Your task to perform on an android device: change alarm snooze length Image 0: 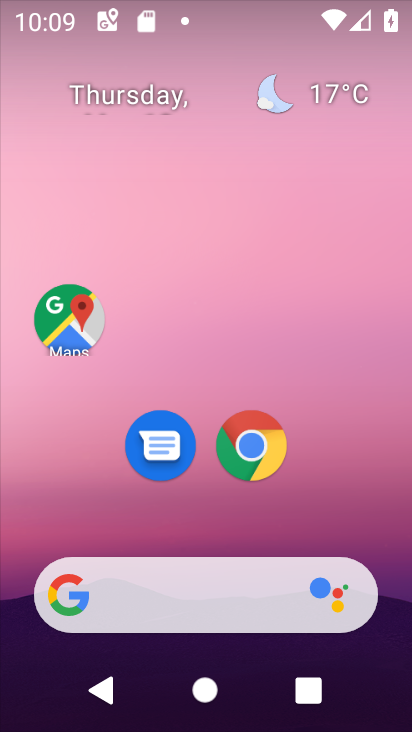
Step 0: drag from (282, 490) to (307, 251)
Your task to perform on an android device: change alarm snooze length Image 1: 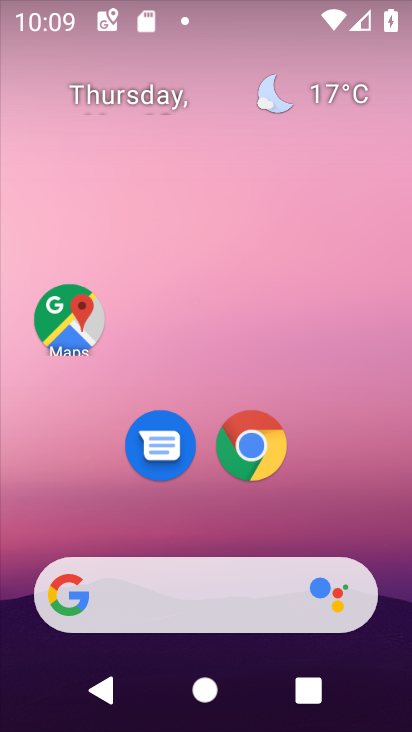
Step 1: drag from (274, 508) to (307, 203)
Your task to perform on an android device: change alarm snooze length Image 2: 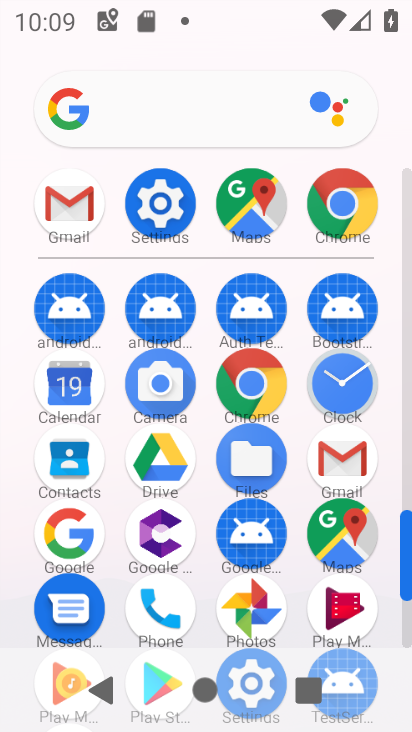
Step 2: click (345, 383)
Your task to perform on an android device: change alarm snooze length Image 3: 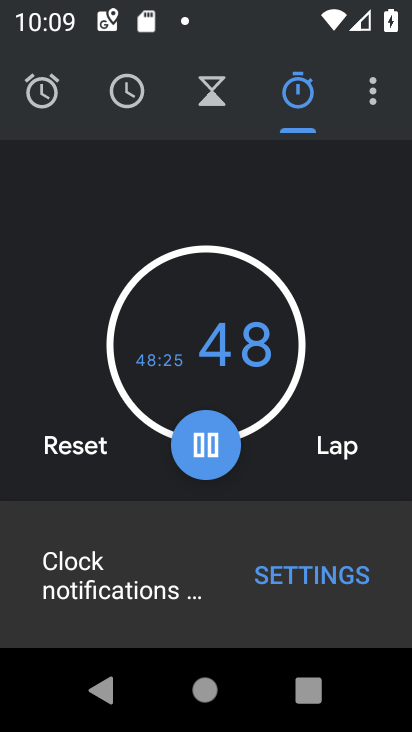
Step 3: click (377, 107)
Your task to perform on an android device: change alarm snooze length Image 4: 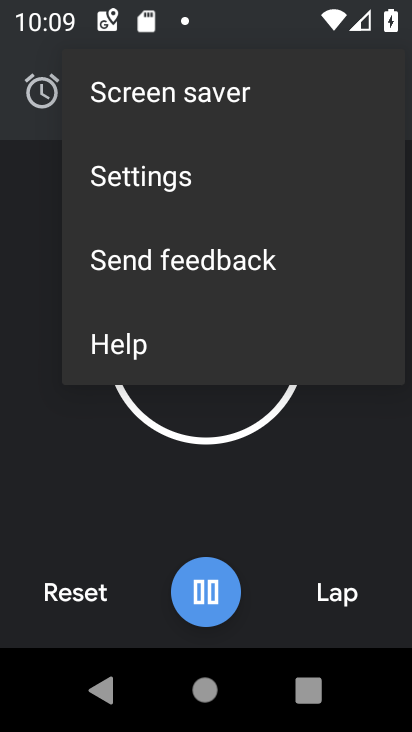
Step 4: click (183, 199)
Your task to perform on an android device: change alarm snooze length Image 5: 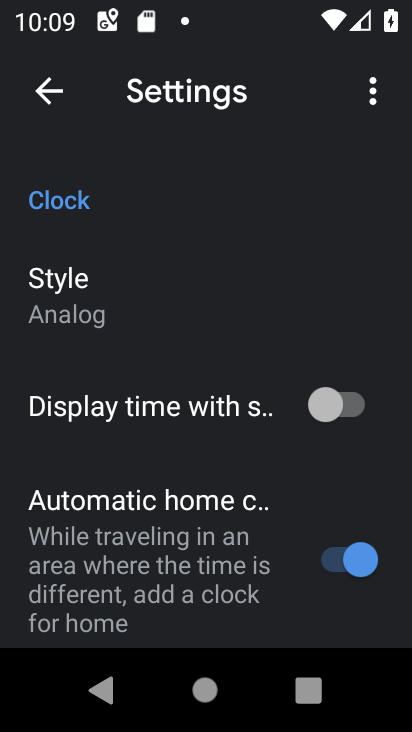
Step 5: drag from (99, 577) to (194, 212)
Your task to perform on an android device: change alarm snooze length Image 6: 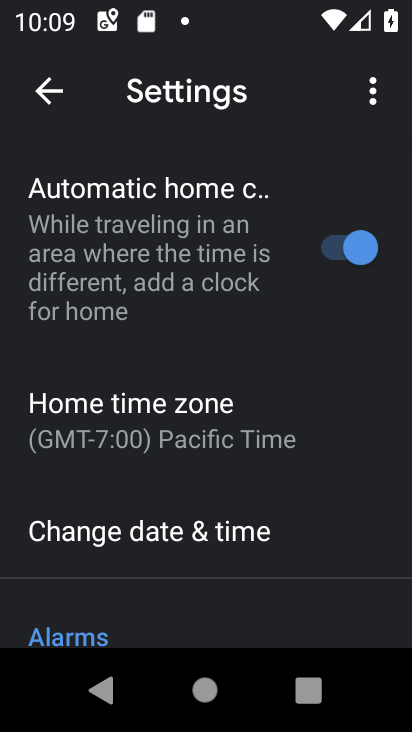
Step 6: drag from (204, 533) to (209, 311)
Your task to perform on an android device: change alarm snooze length Image 7: 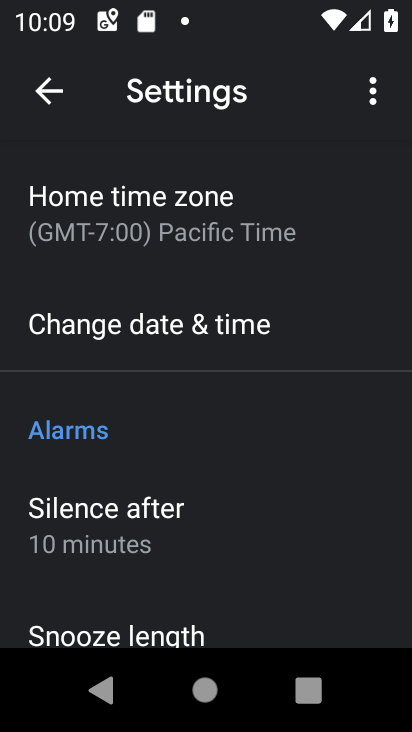
Step 7: drag from (200, 549) to (224, 363)
Your task to perform on an android device: change alarm snooze length Image 8: 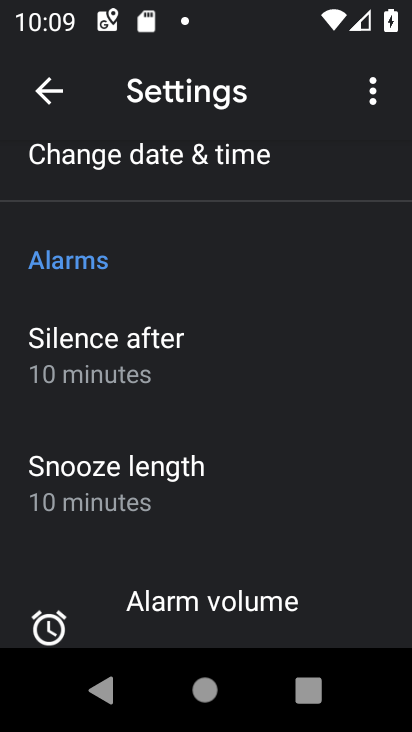
Step 8: click (214, 484)
Your task to perform on an android device: change alarm snooze length Image 9: 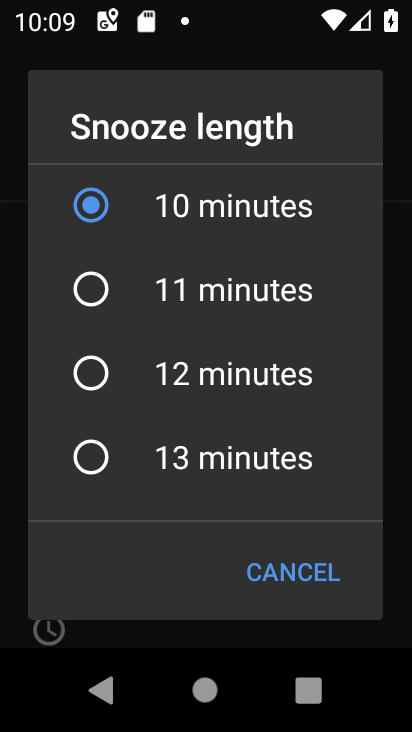
Step 9: click (229, 315)
Your task to perform on an android device: change alarm snooze length Image 10: 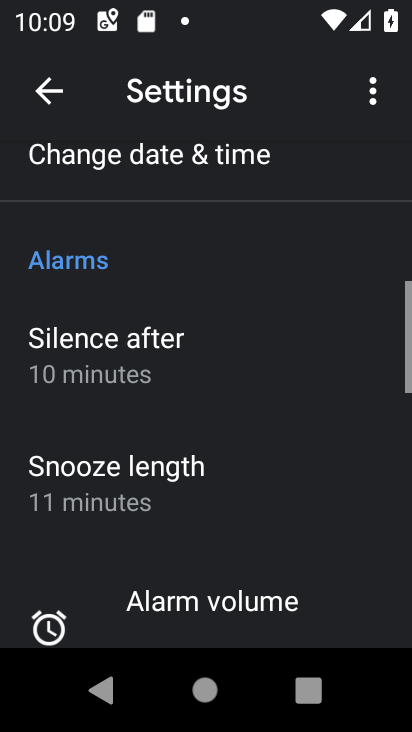
Step 10: task complete